Your task to perform on an android device: What is the recent news? Image 0: 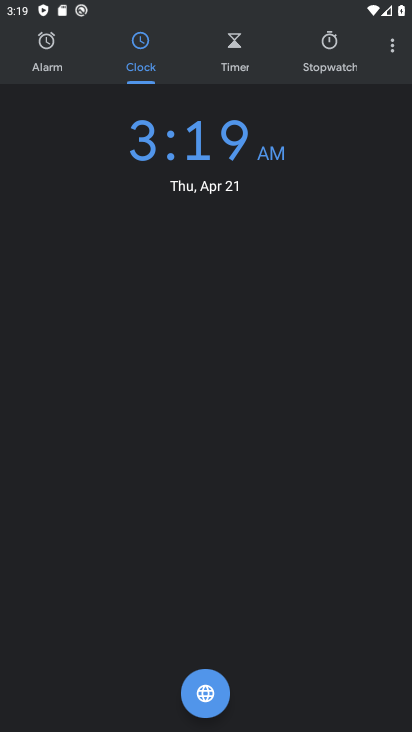
Step 0: press home button
Your task to perform on an android device: What is the recent news? Image 1: 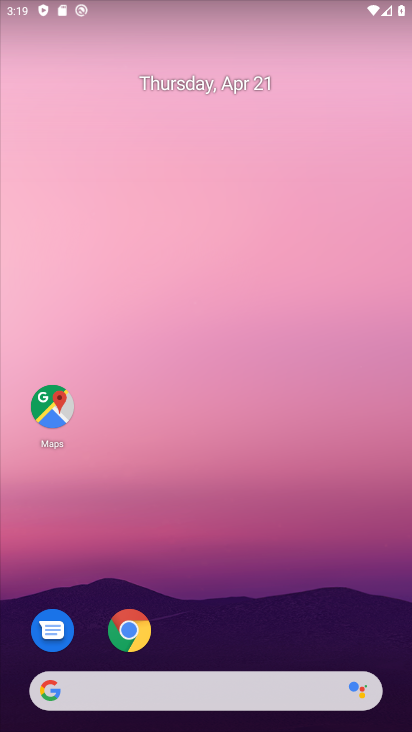
Step 1: task complete